Your task to perform on an android device: Open maps Image 0: 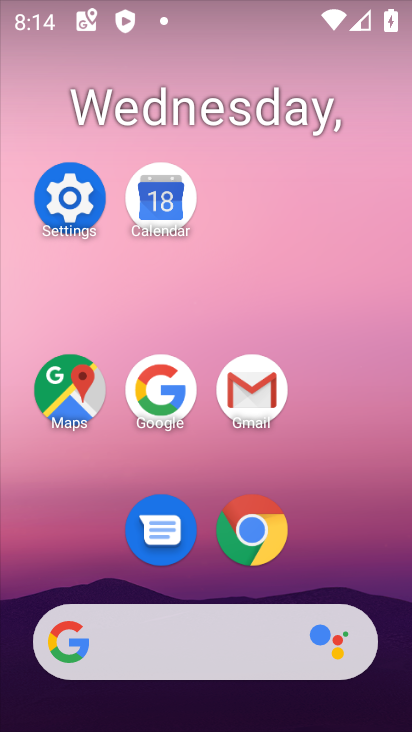
Step 0: click (74, 385)
Your task to perform on an android device: Open maps Image 1: 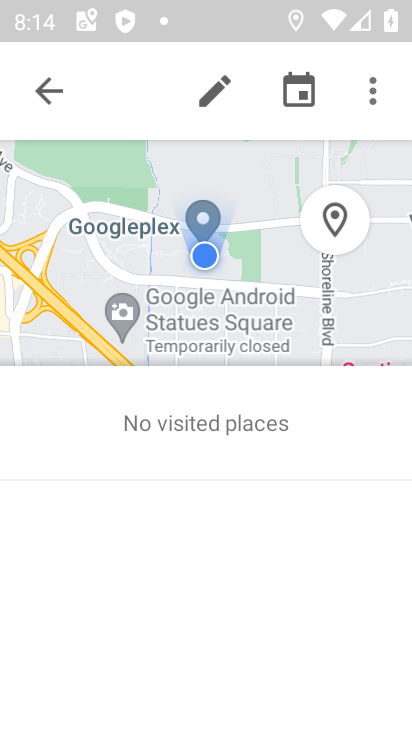
Step 1: task complete